Your task to perform on an android device: Play the last video I watched on Youtube Image 0: 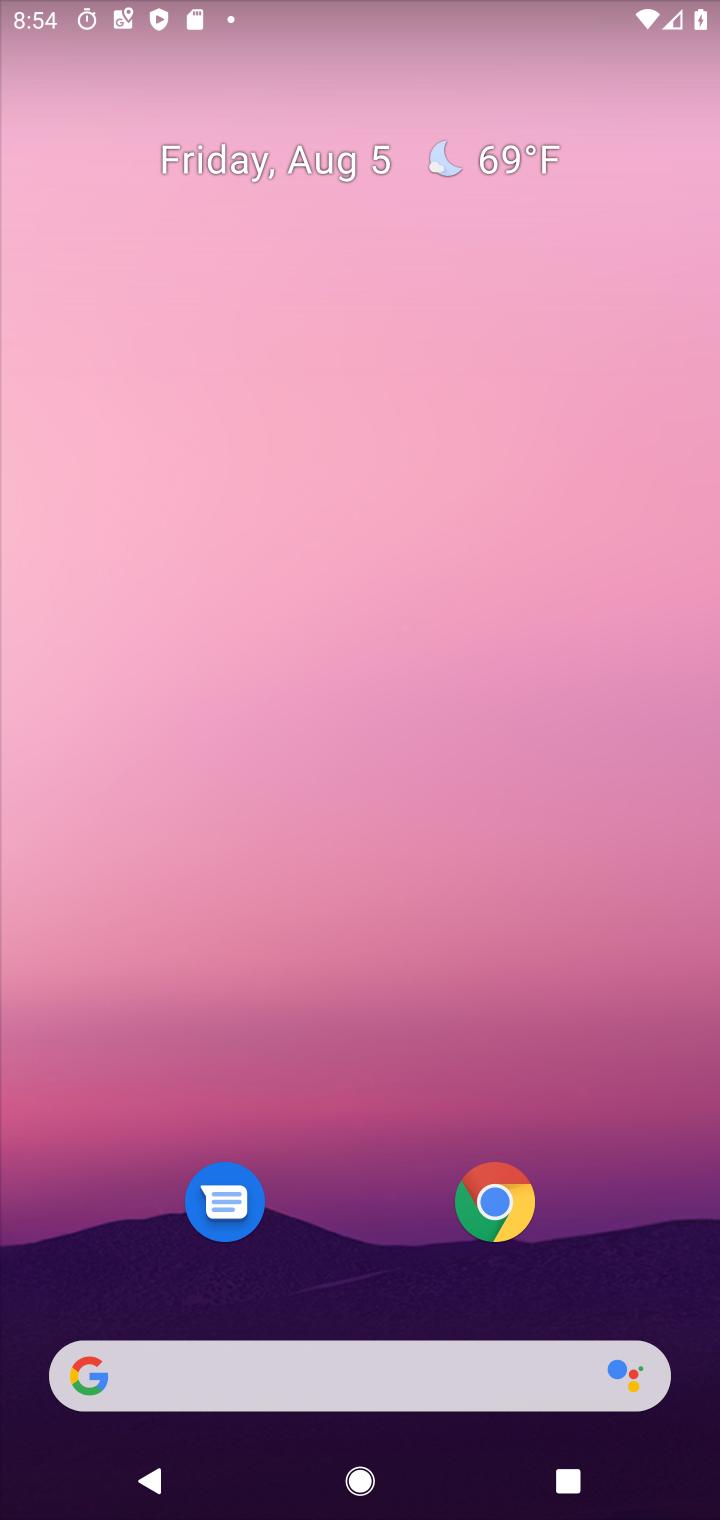
Step 0: press home button
Your task to perform on an android device: Play the last video I watched on Youtube Image 1: 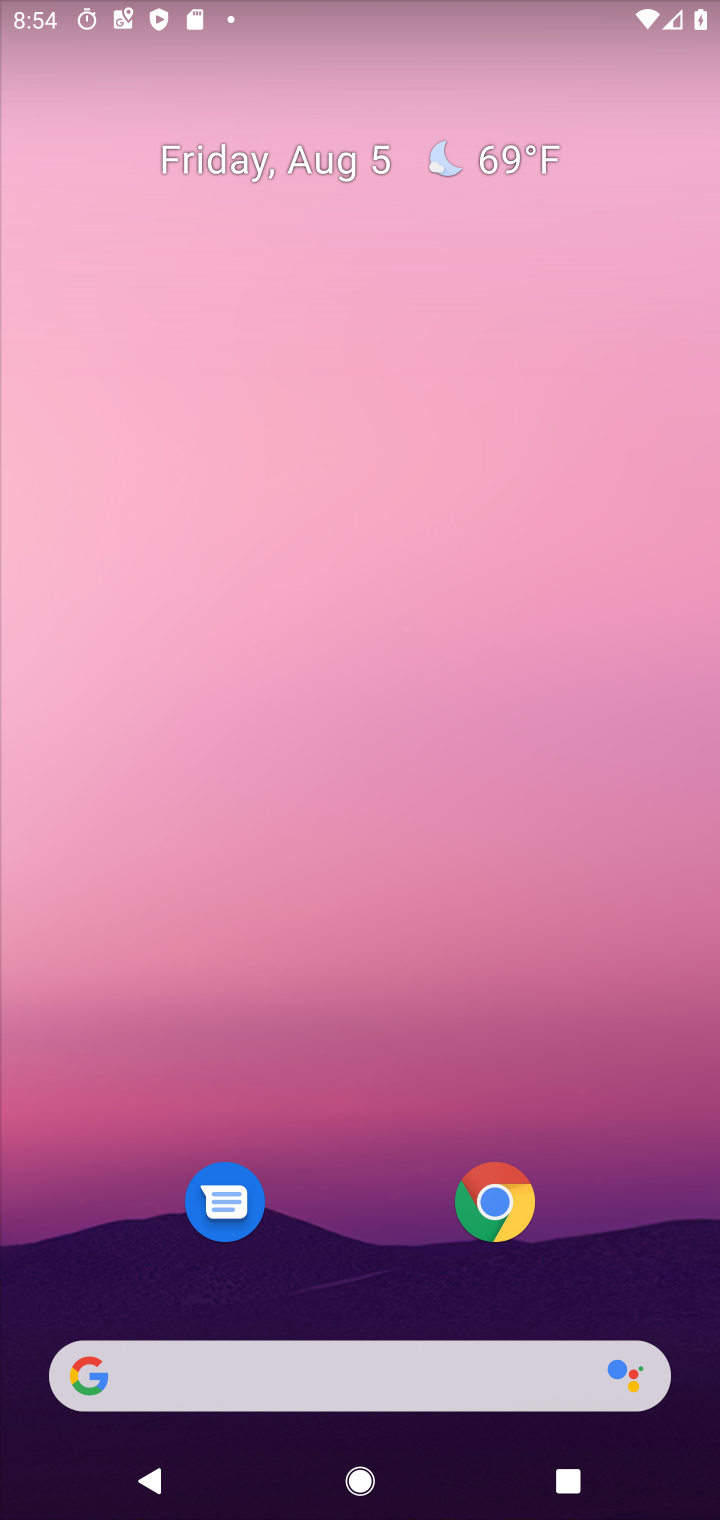
Step 1: drag from (302, 287) to (302, 139)
Your task to perform on an android device: Play the last video I watched on Youtube Image 2: 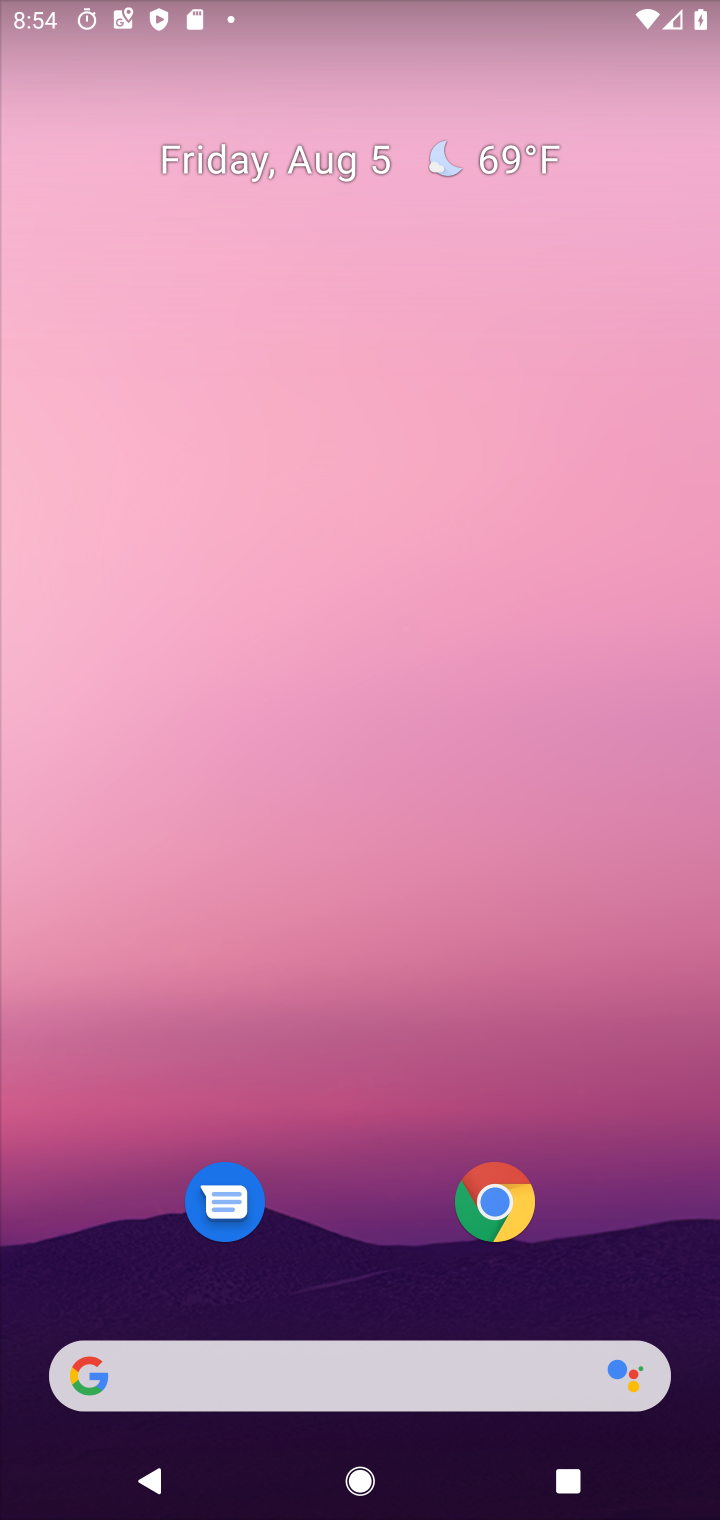
Step 2: drag from (360, 1139) to (350, 59)
Your task to perform on an android device: Play the last video I watched on Youtube Image 3: 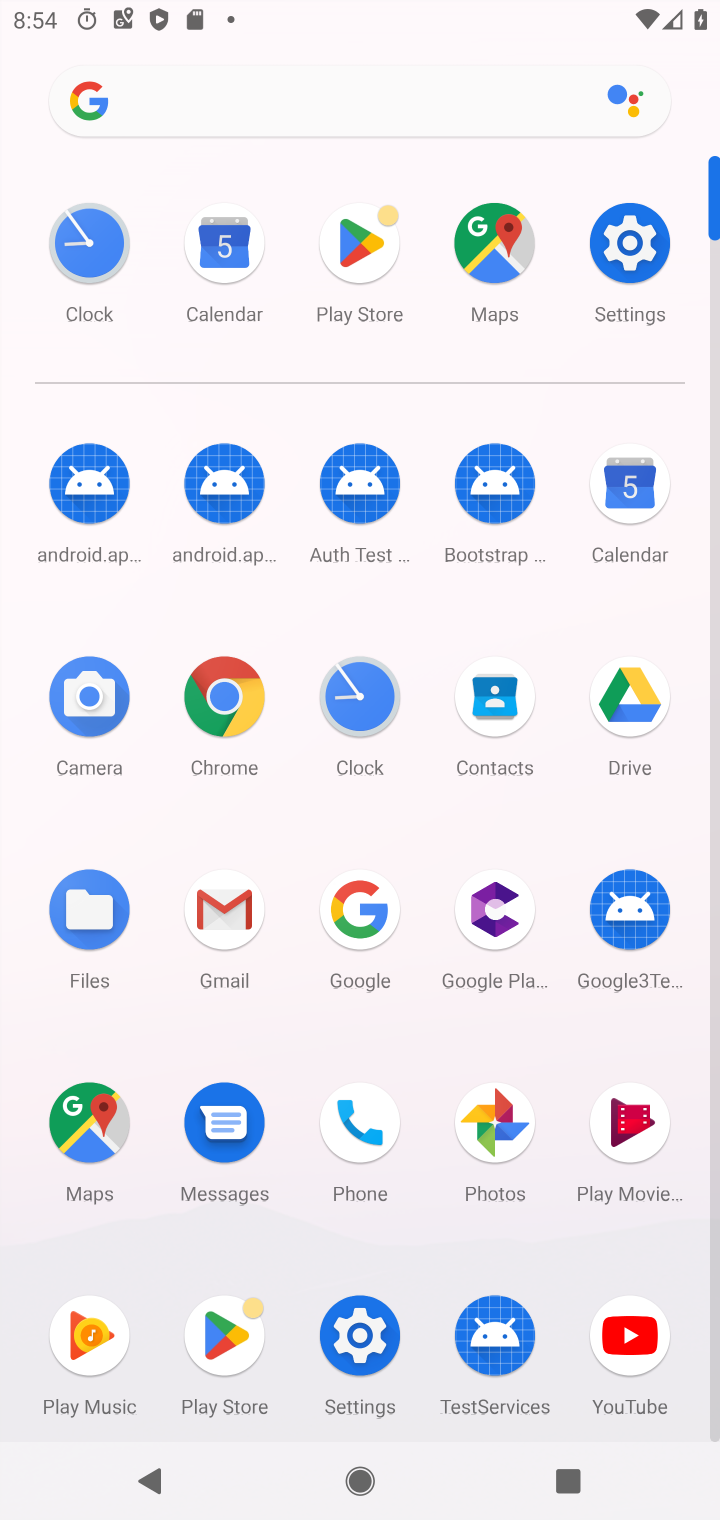
Step 3: click (640, 1344)
Your task to perform on an android device: Play the last video I watched on Youtube Image 4: 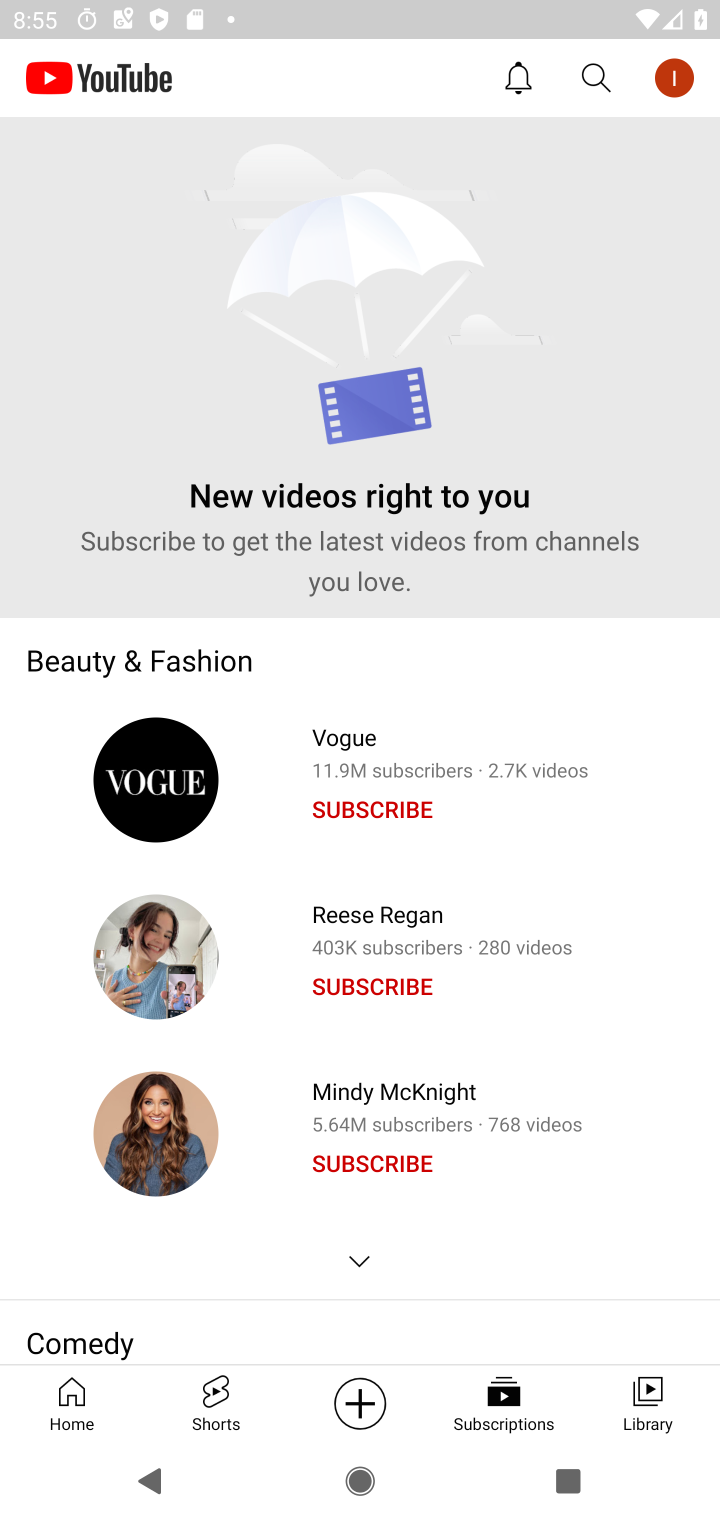
Step 4: click (606, 1398)
Your task to perform on an android device: Play the last video I watched on Youtube Image 5: 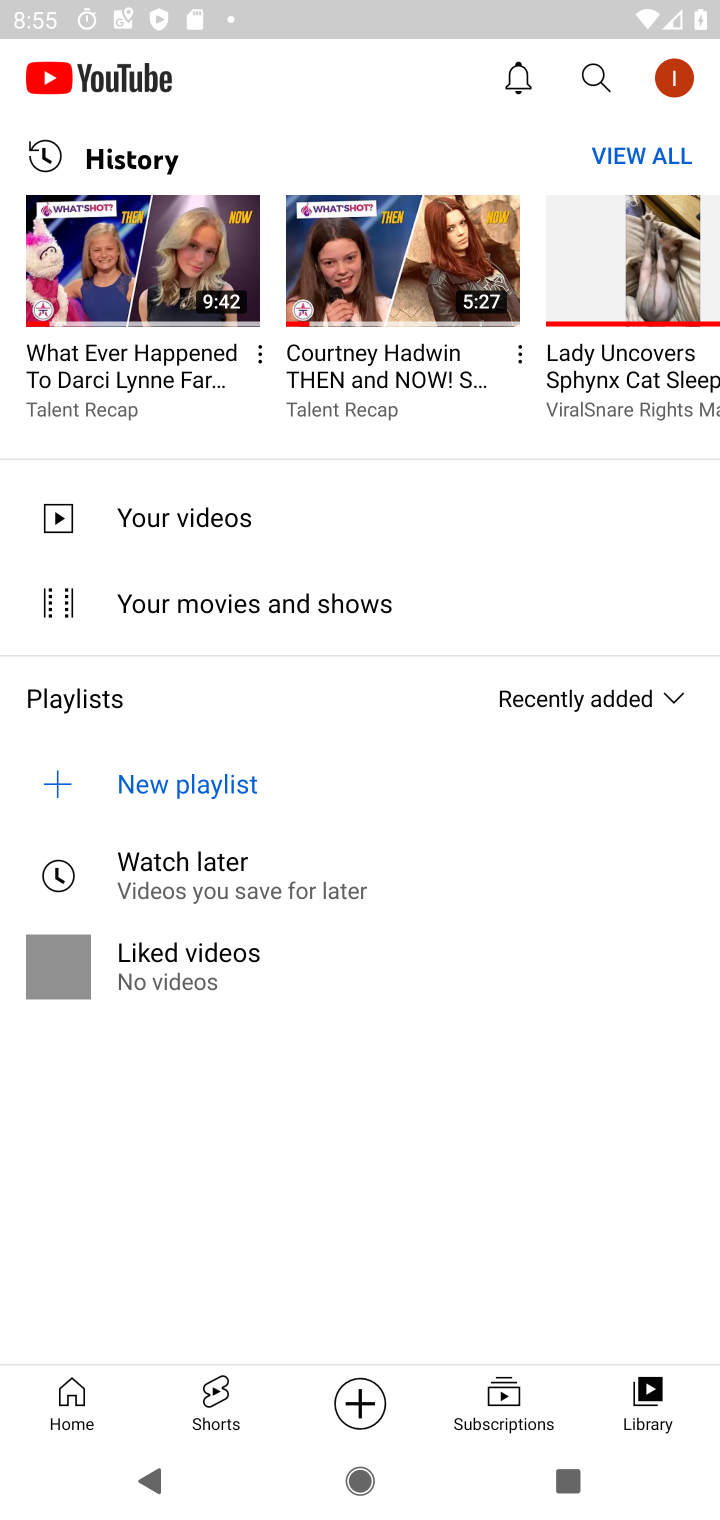
Step 5: click (148, 241)
Your task to perform on an android device: Play the last video I watched on Youtube Image 6: 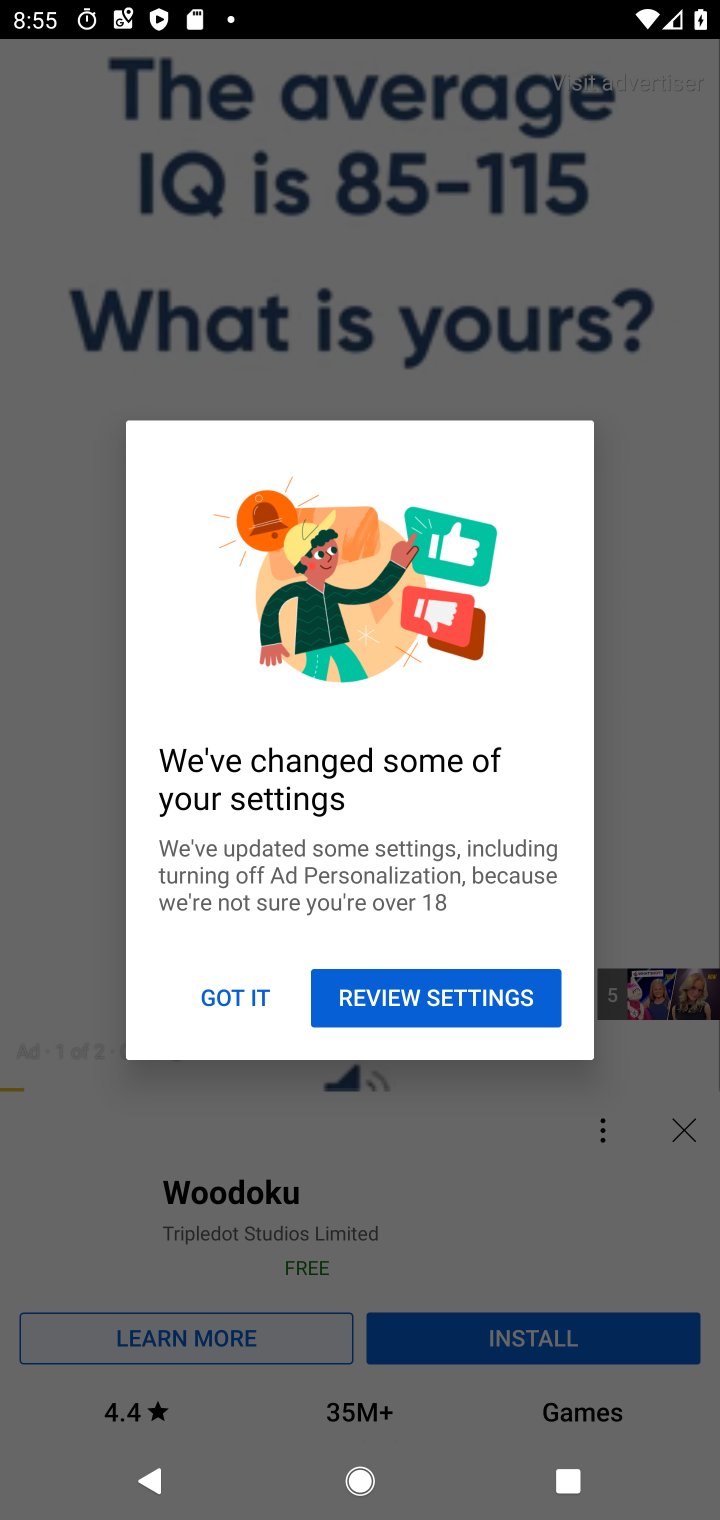
Step 6: task complete